Your task to perform on an android device: Search for "razer kraken" on amazon.com, select the first entry, and add it to the cart. Image 0: 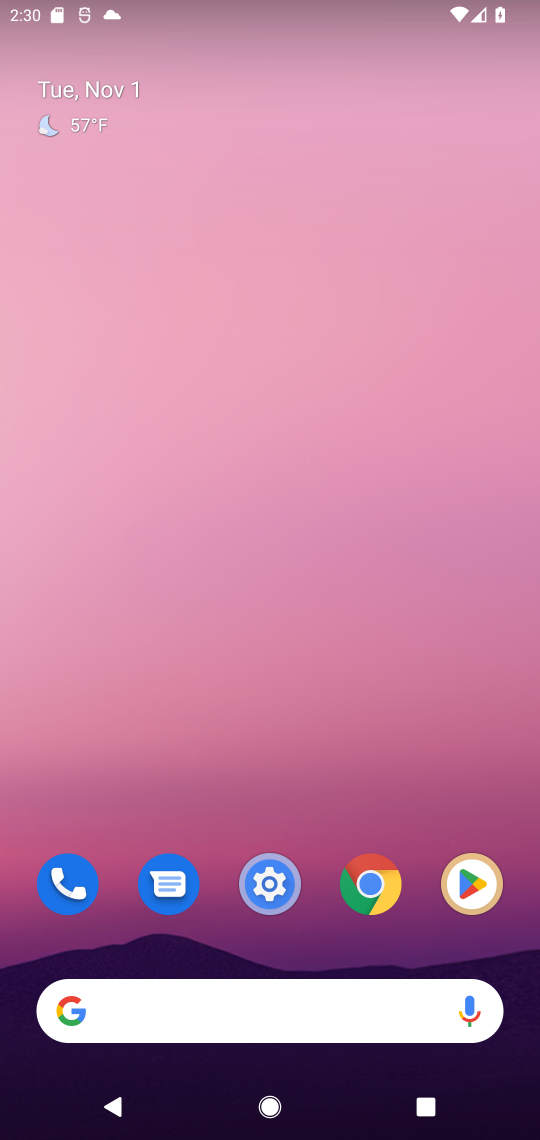
Step 0: press home button
Your task to perform on an android device: Search for "razer kraken" on amazon.com, select the first entry, and add it to the cart. Image 1: 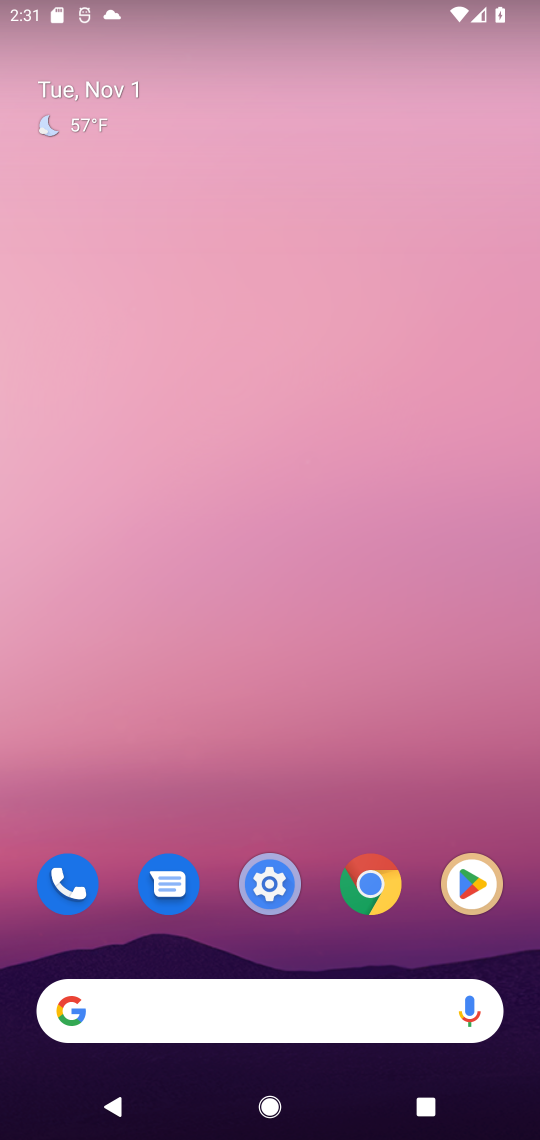
Step 1: click (96, 1018)
Your task to perform on an android device: Search for "razer kraken" on amazon.com, select the first entry, and add it to the cart. Image 2: 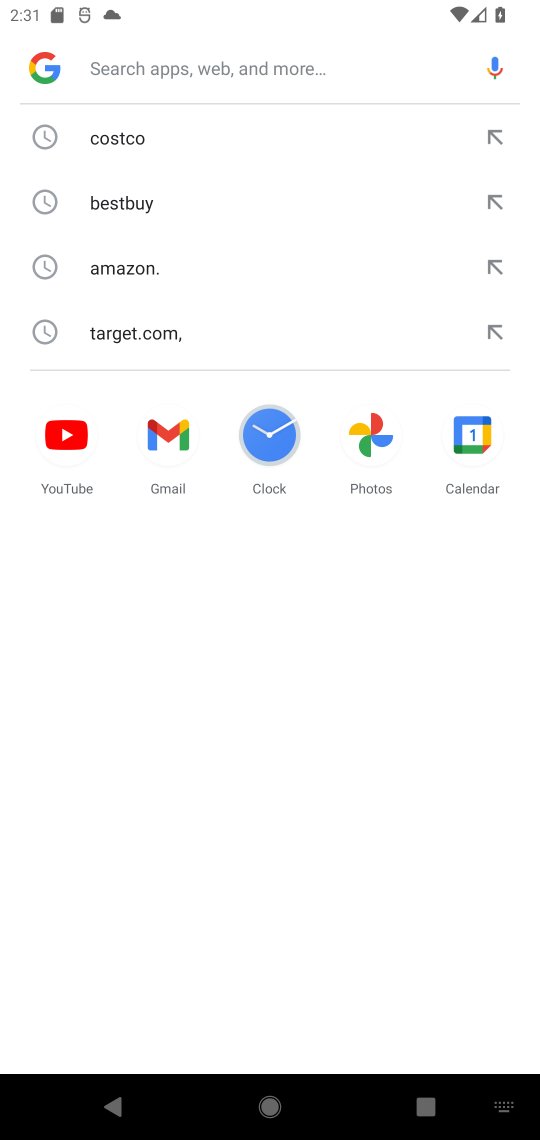
Step 2: type "amazon.com"
Your task to perform on an android device: Search for "razer kraken" on amazon.com, select the first entry, and add it to the cart. Image 3: 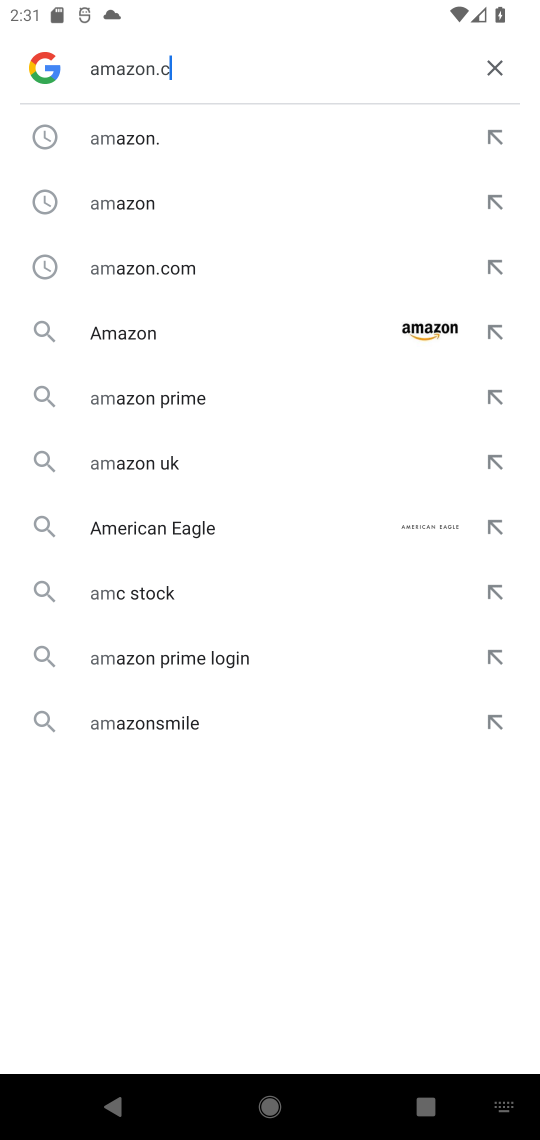
Step 3: press enter
Your task to perform on an android device: Search for "razer kraken" on amazon.com, select the first entry, and add it to the cart. Image 4: 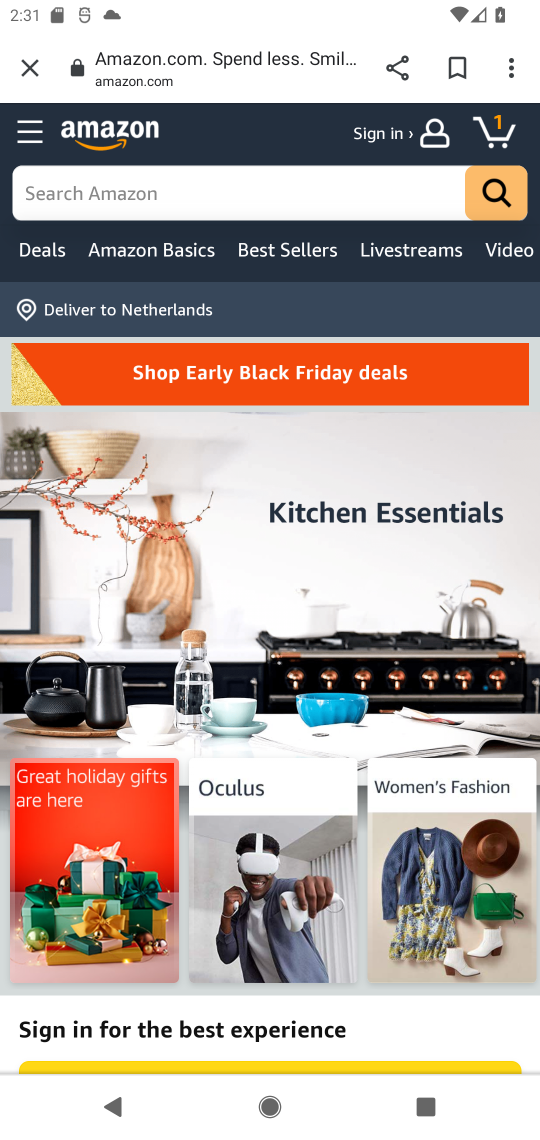
Step 4: click (47, 187)
Your task to perform on an android device: Search for "razer kraken" on amazon.com, select the first entry, and add it to the cart. Image 5: 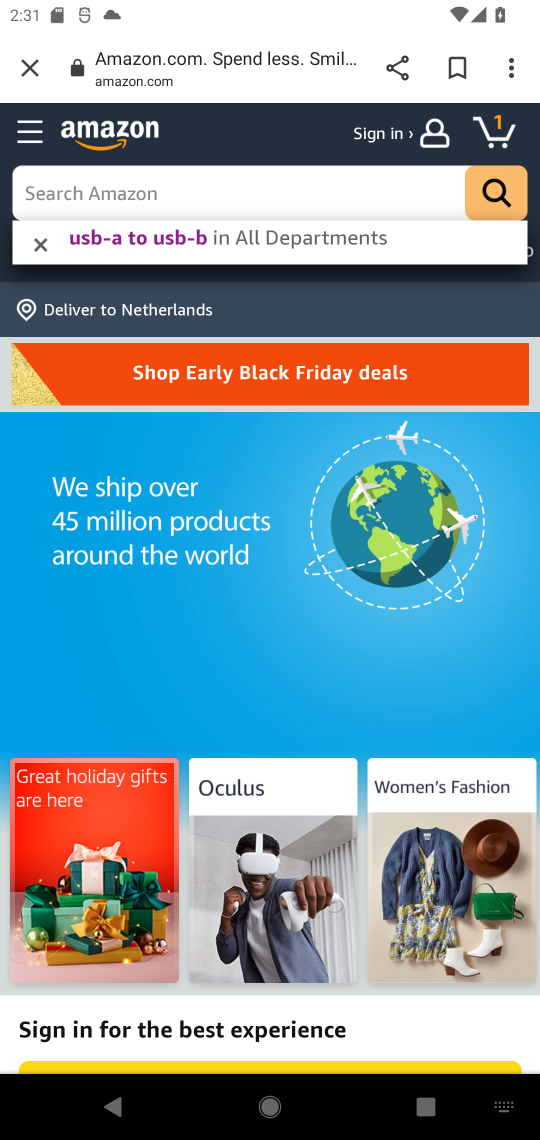
Step 5: type "razer kraken"
Your task to perform on an android device: Search for "razer kraken" on amazon.com, select the first entry, and add it to the cart. Image 6: 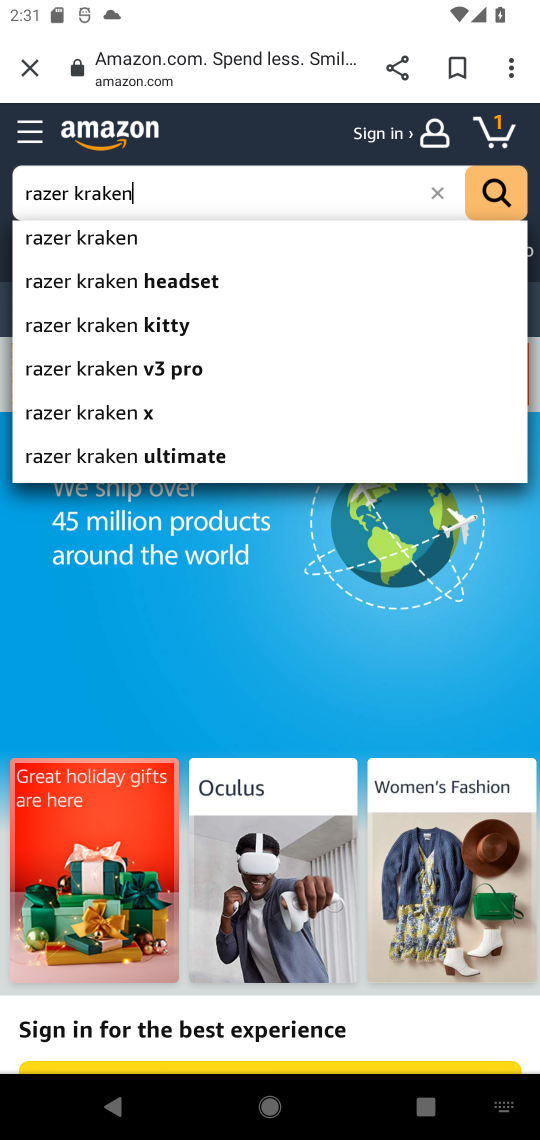
Step 6: click (498, 197)
Your task to perform on an android device: Search for "razer kraken" on amazon.com, select the first entry, and add it to the cart. Image 7: 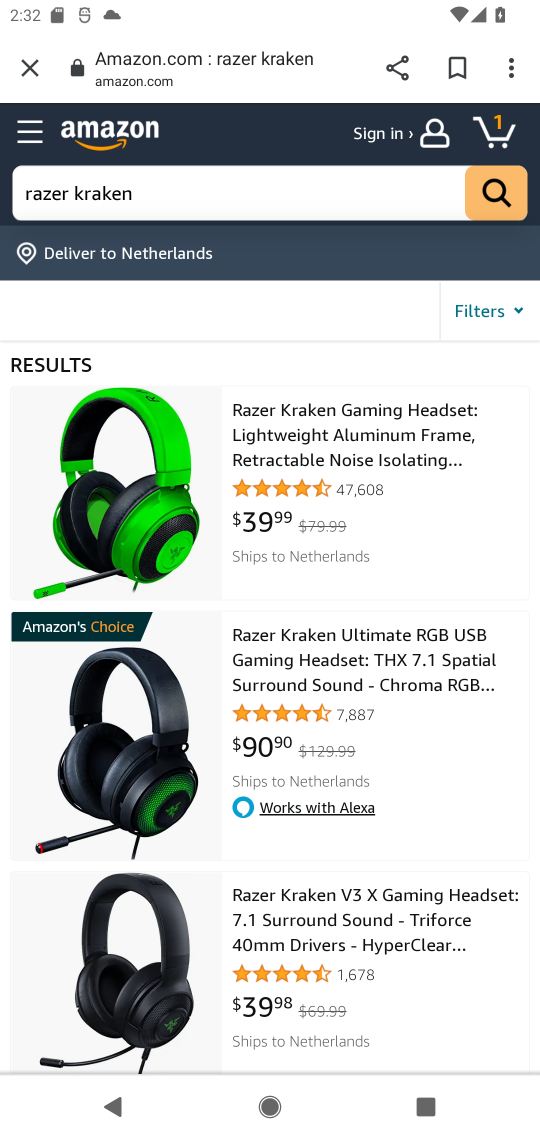
Step 7: click (349, 456)
Your task to perform on an android device: Search for "razer kraken" on amazon.com, select the first entry, and add it to the cart. Image 8: 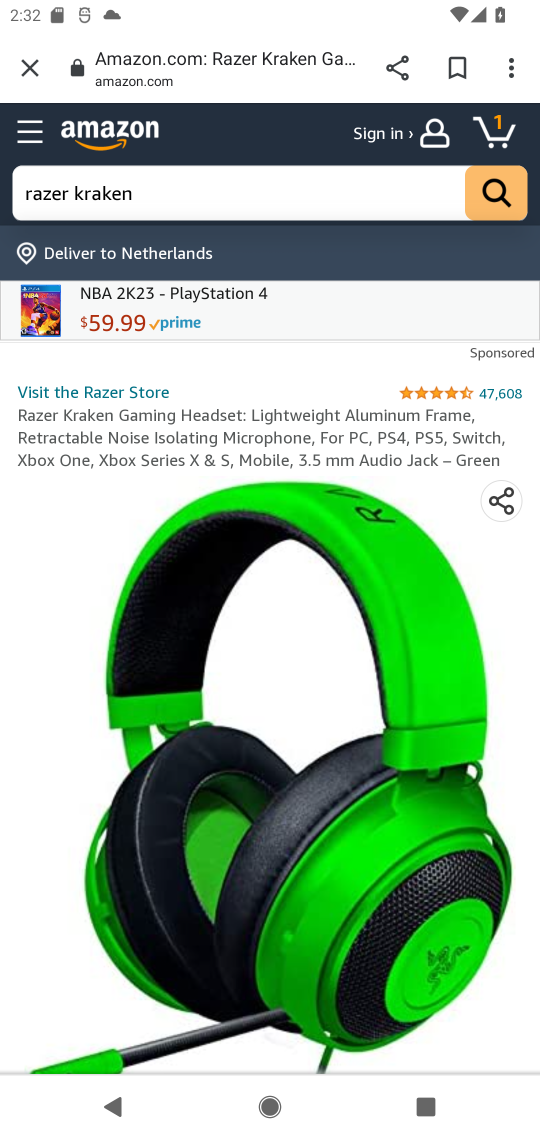
Step 8: drag from (415, 855) to (399, 483)
Your task to perform on an android device: Search for "razer kraken" on amazon.com, select the first entry, and add it to the cart. Image 9: 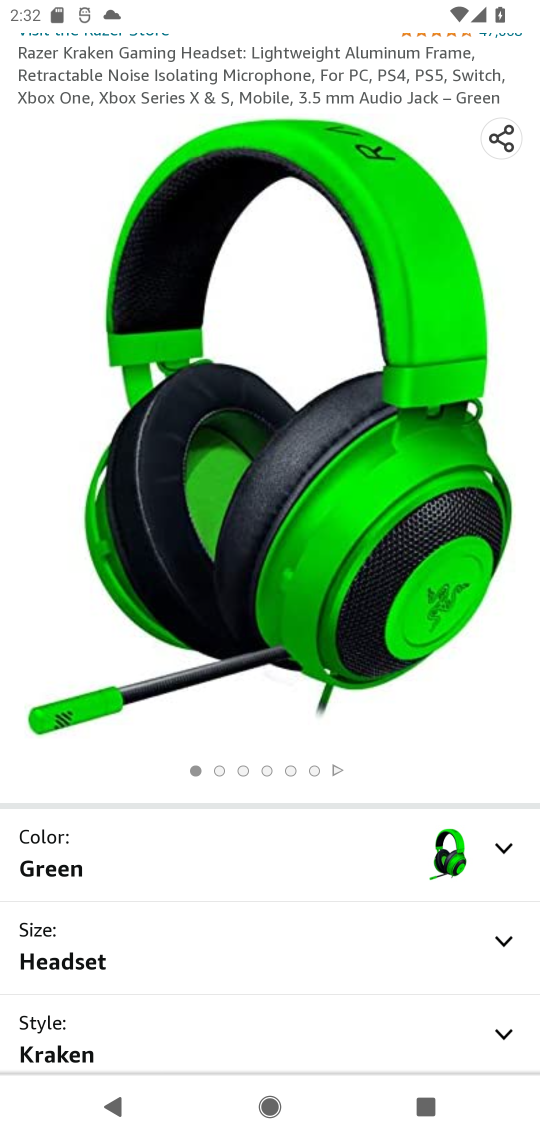
Step 9: drag from (271, 939) to (272, 412)
Your task to perform on an android device: Search for "razer kraken" on amazon.com, select the first entry, and add it to the cart. Image 10: 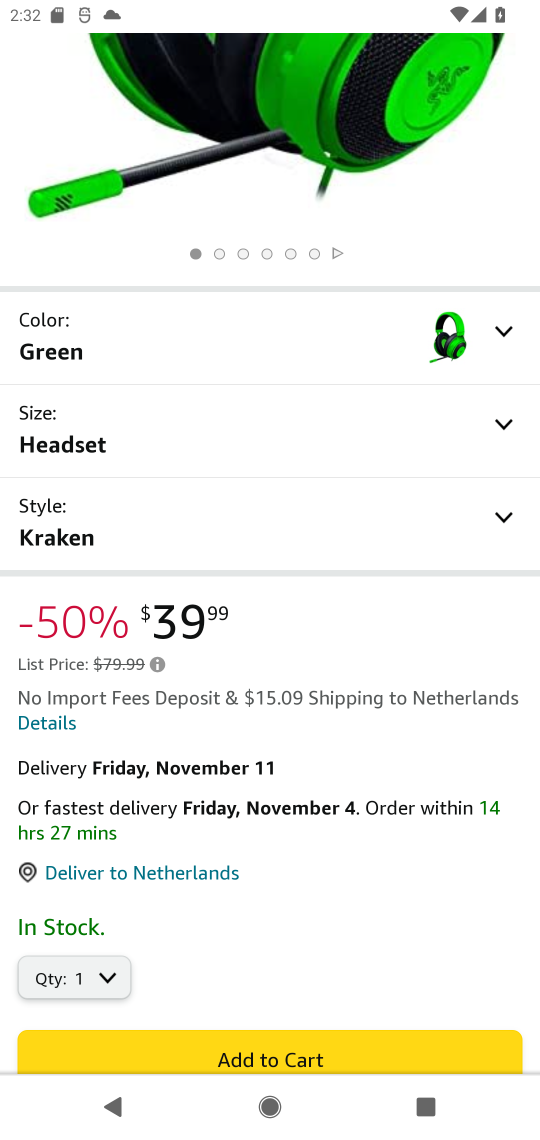
Step 10: drag from (316, 849) to (310, 564)
Your task to perform on an android device: Search for "razer kraken" on amazon.com, select the first entry, and add it to the cart. Image 11: 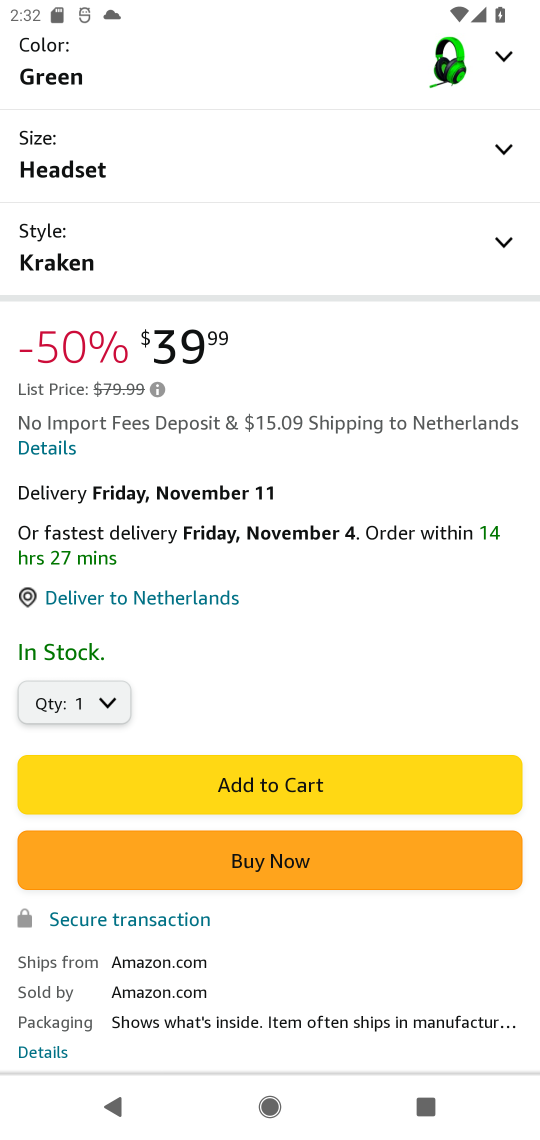
Step 11: click (236, 791)
Your task to perform on an android device: Search for "razer kraken" on amazon.com, select the first entry, and add it to the cart. Image 12: 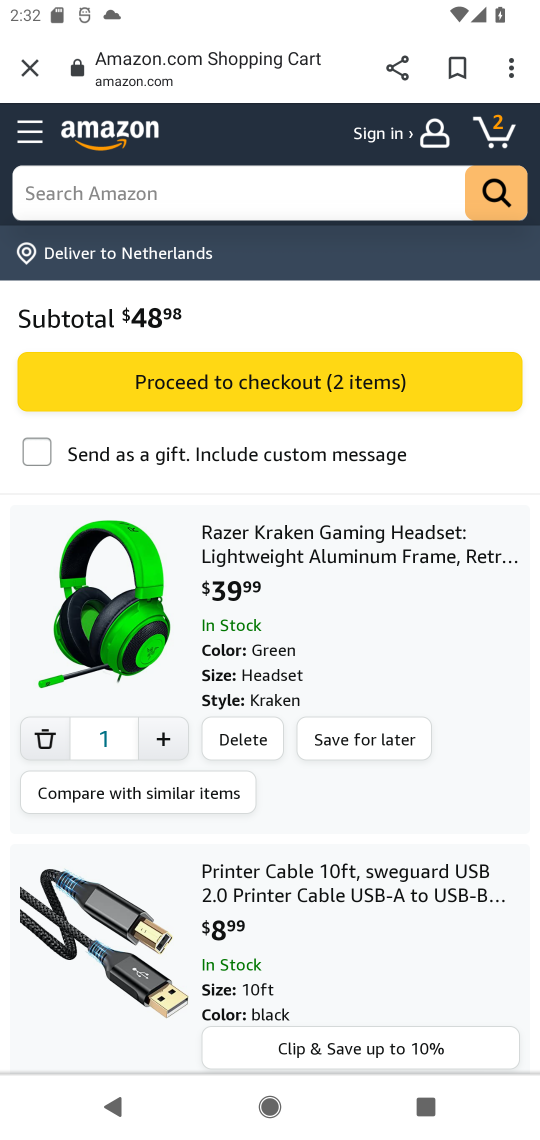
Step 12: task complete